Your task to perform on an android device: Set the phone to "Do not disturb". Image 0: 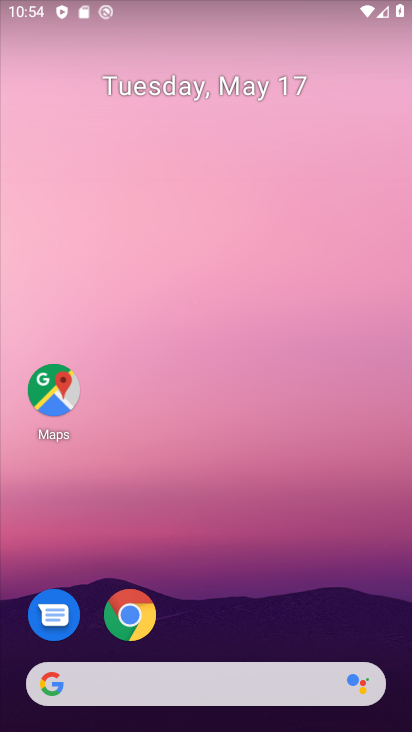
Step 0: drag from (225, 573) to (262, 300)
Your task to perform on an android device: Set the phone to "Do not disturb". Image 1: 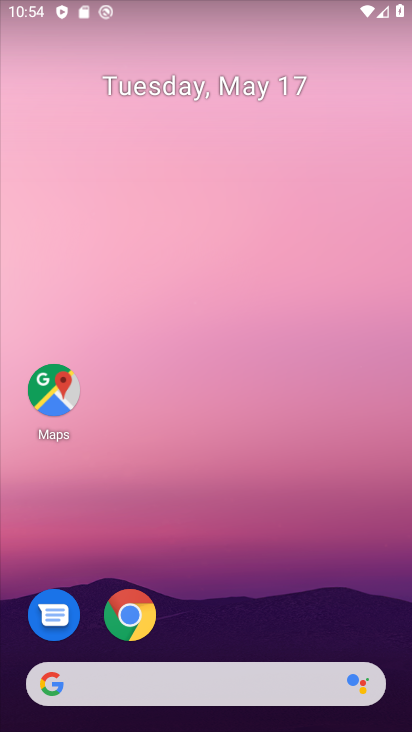
Step 1: drag from (220, 4) to (229, 329)
Your task to perform on an android device: Set the phone to "Do not disturb". Image 2: 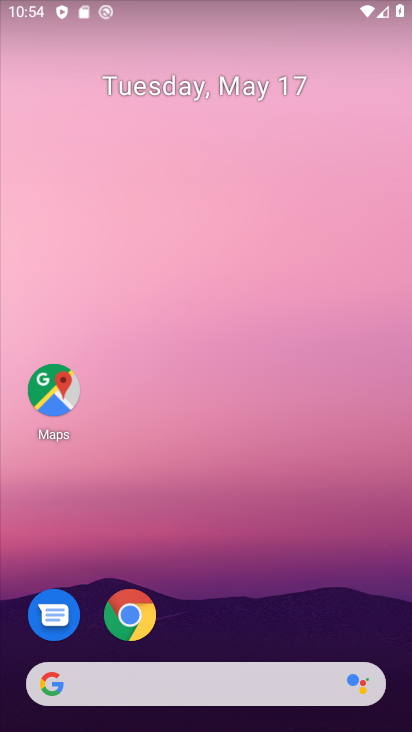
Step 2: drag from (166, 632) to (234, 292)
Your task to perform on an android device: Set the phone to "Do not disturb". Image 3: 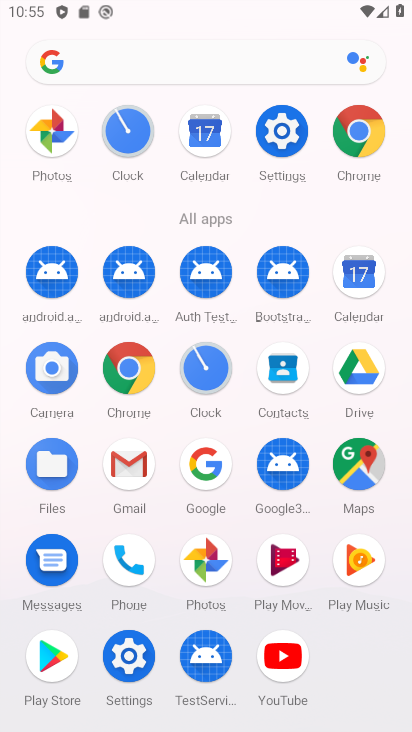
Step 3: drag from (233, 0) to (233, 316)
Your task to perform on an android device: Set the phone to "Do not disturb". Image 4: 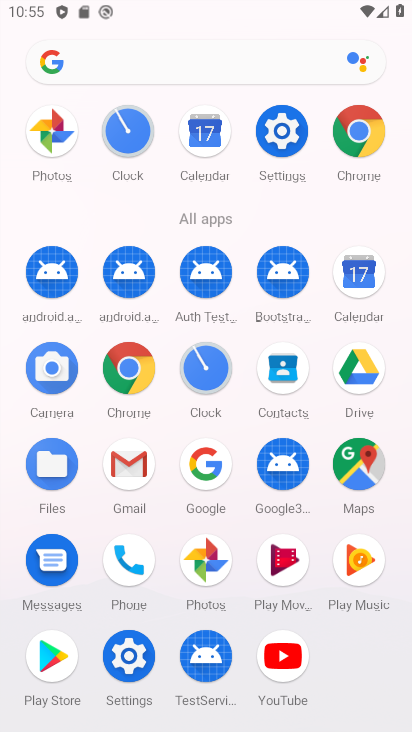
Step 4: drag from (141, 2) to (89, 462)
Your task to perform on an android device: Set the phone to "Do not disturb". Image 5: 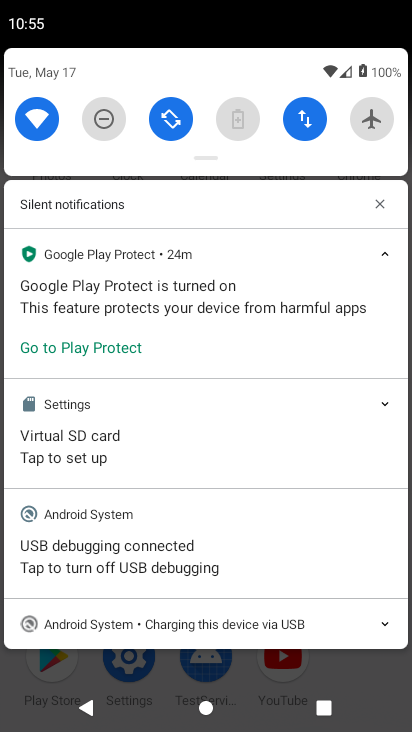
Step 5: click (103, 132)
Your task to perform on an android device: Set the phone to "Do not disturb". Image 6: 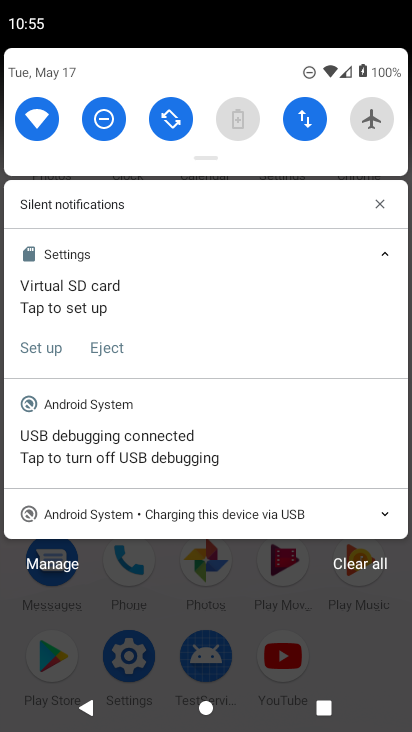
Step 6: task complete